Your task to perform on an android device: Check the weather Image 0: 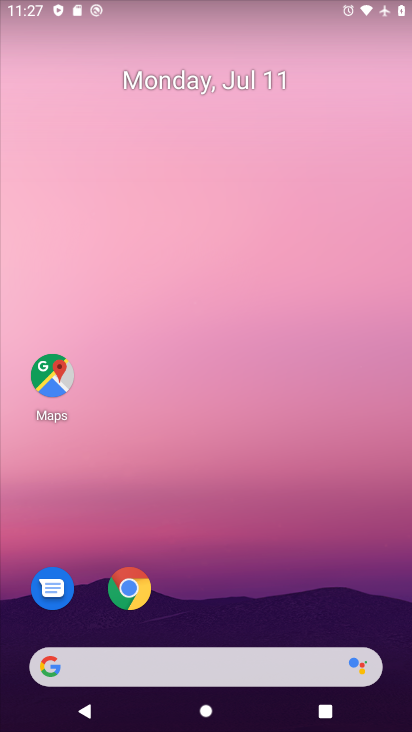
Step 0: click (198, 665)
Your task to perform on an android device: Check the weather Image 1: 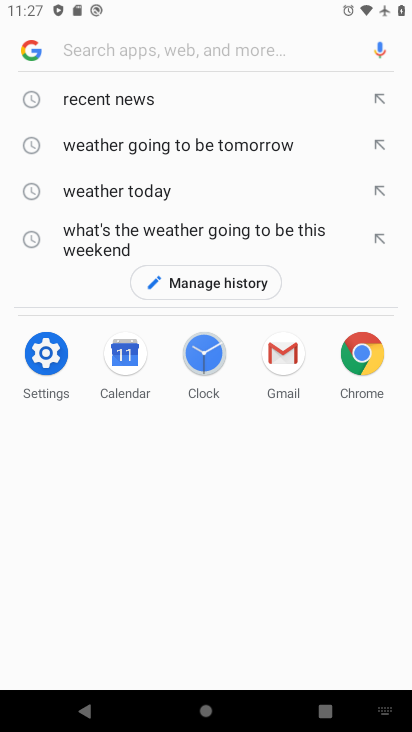
Step 1: click (118, 188)
Your task to perform on an android device: Check the weather Image 2: 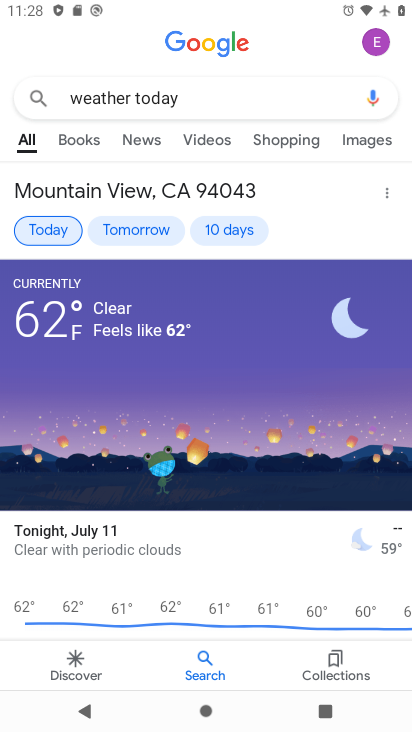
Step 2: task complete